Your task to perform on an android device: Open Youtube and go to "Your channel" Image 0: 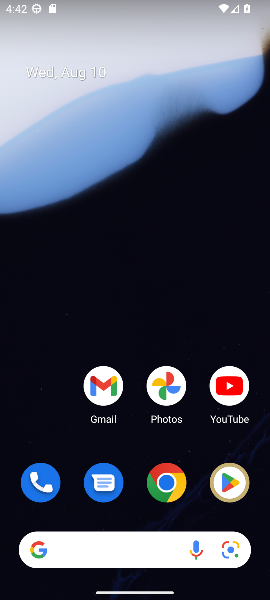
Step 0: drag from (58, 429) to (131, 113)
Your task to perform on an android device: Open Youtube and go to "Your channel" Image 1: 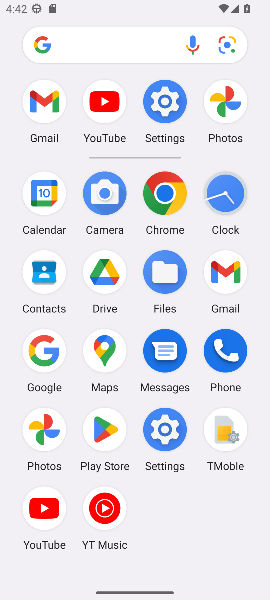
Step 1: click (105, 107)
Your task to perform on an android device: Open Youtube and go to "Your channel" Image 2: 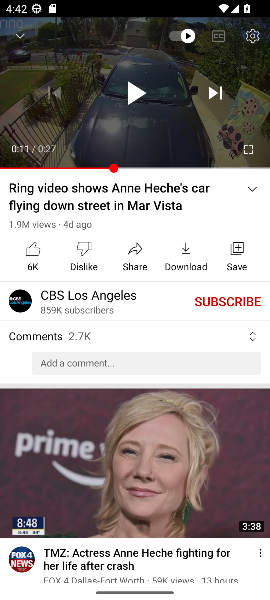
Step 2: press back button
Your task to perform on an android device: Open Youtube and go to "Your channel" Image 3: 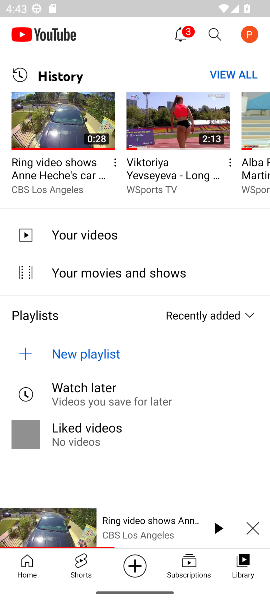
Step 3: click (247, 38)
Your task to perform on an android device: Open Youtube and go to "Your channel" Image 4: 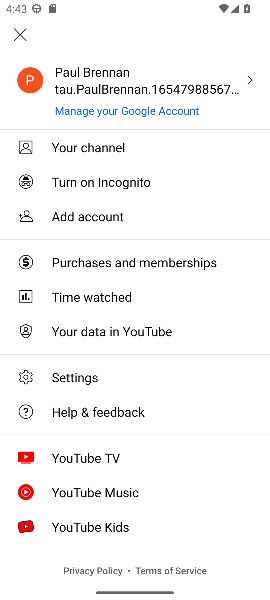
Step 4: click (114, 146)
Your task to perform on an android device: Open Youtube and go to "Your channel" Image 5: 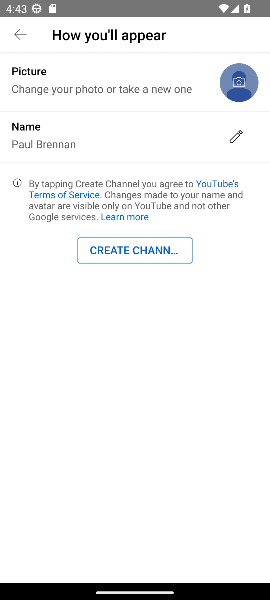
Step 5: task complete